Your task to perform on an android device: show emergency info Image 0: 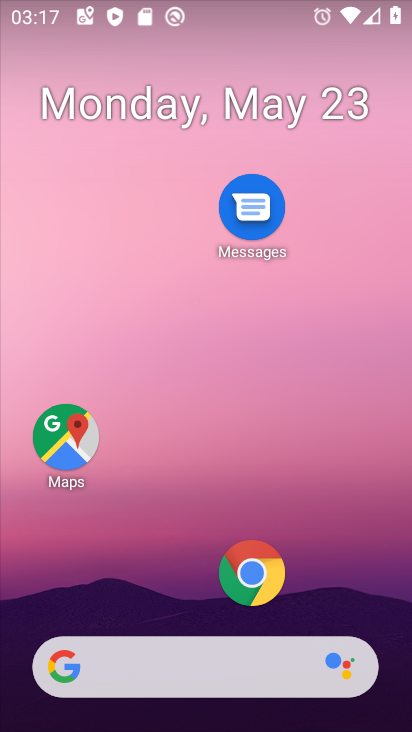
Step 0: drag from (335, 585) to (405, 459)
Your task to perform on an android device: show emergency info Image 1: 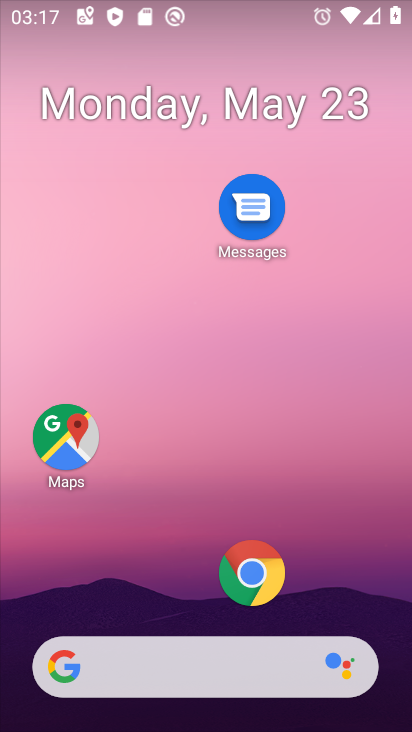
Step 1: drag from (286, 604) to (321, 10)
Your task to perform on an android device: show emergency info Image 2: 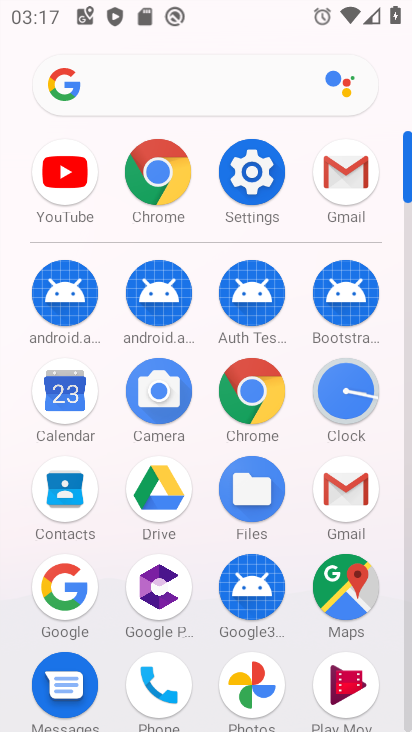
Step 2: click (256, 149)
Your task to perform on an android device: show emergency info Image 3: 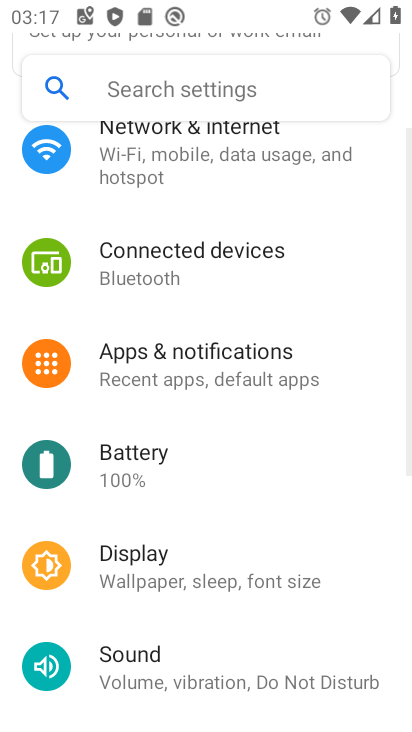
Step 3: drag from (254, 695) to (324, 3)
Your task to perform on an android device: show emergency info Image 4: 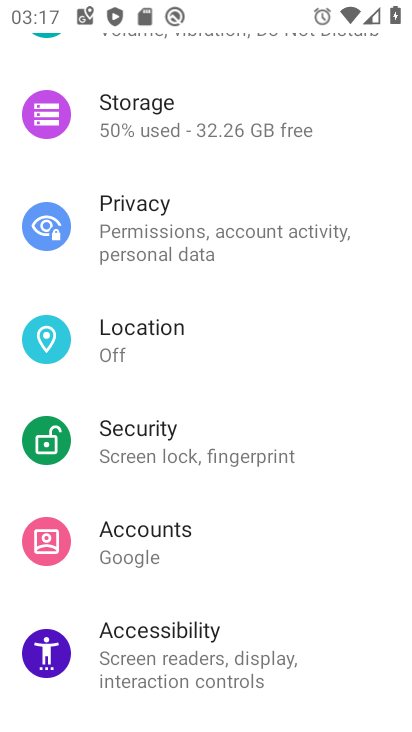
Step 4: drag from (242, 689) to (269, 192)
Your task to perform on an android device: show emergency info Image 5: 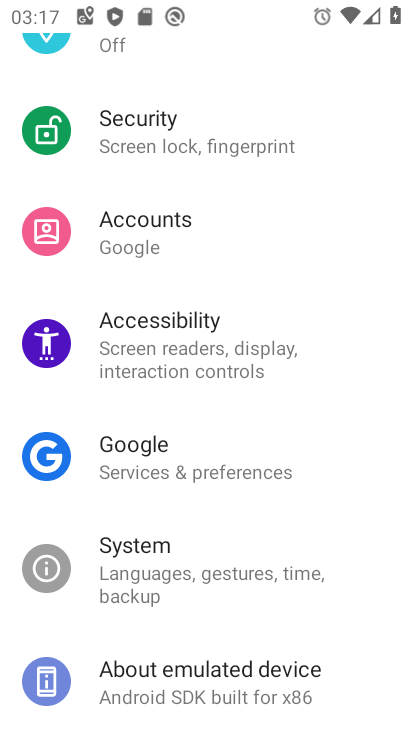
Step 5: click (289, 675)
Your task to perform on an android device: show emergency info Image 6: 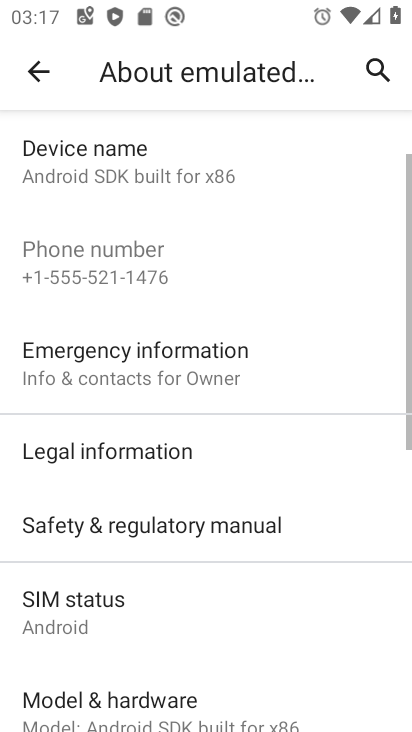
Step 6: click (289, 675)
Your task to perform on an android device: show emergency info Image 7: 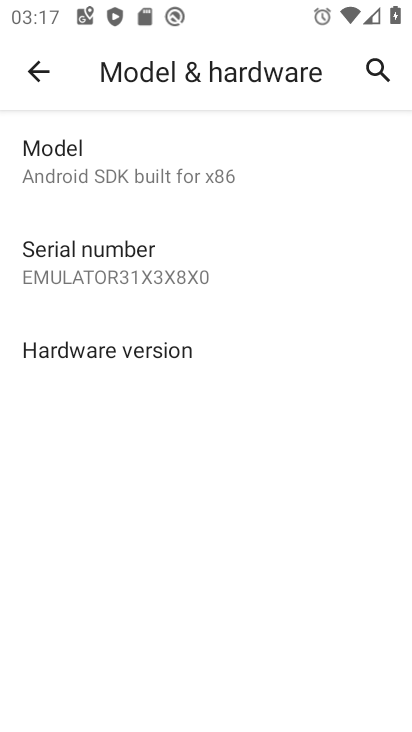
Step 7: press back button
Your task to perform on an android device: show emergency info Image 8: 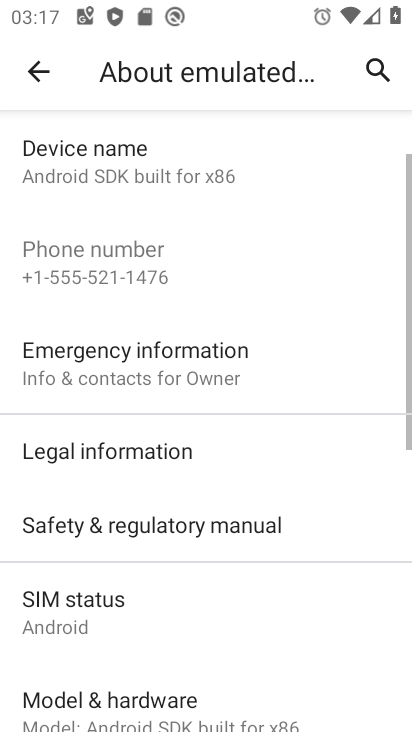
Step 8: click (271, 372)
Your task to perform on an android device: show emergency info Image 9: 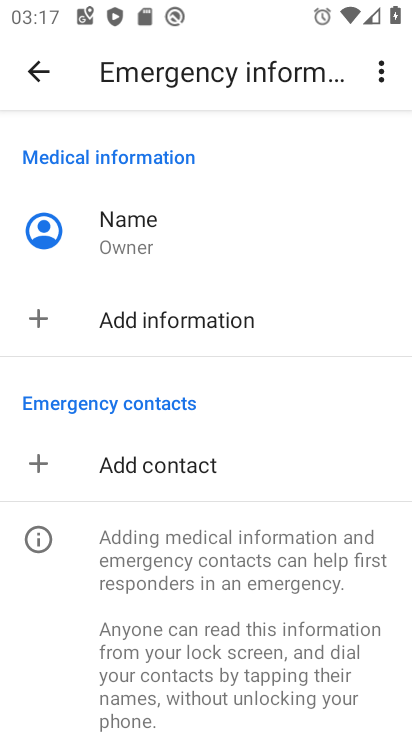
Step 9: task complete